Your task to perform on an android device: open chrome privacy settings Image 0: 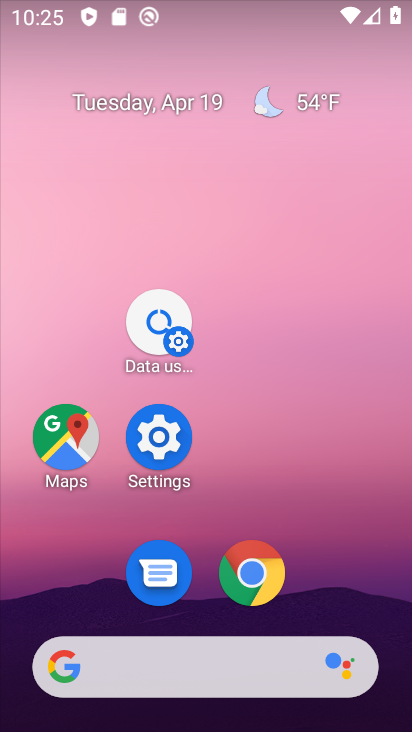
Step 0: click (255, 573)
Your task to perform on an android device: open chrome privacy settings Image 1: 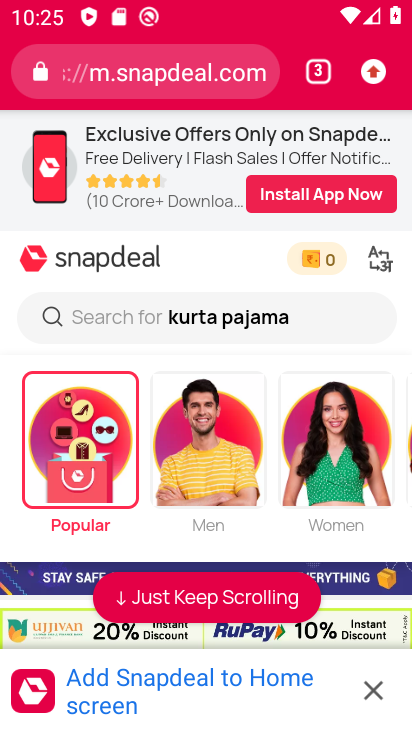
Step 1: click (377, 75)
Your task to perform on an android device: open chrome privacy settings Image 2: 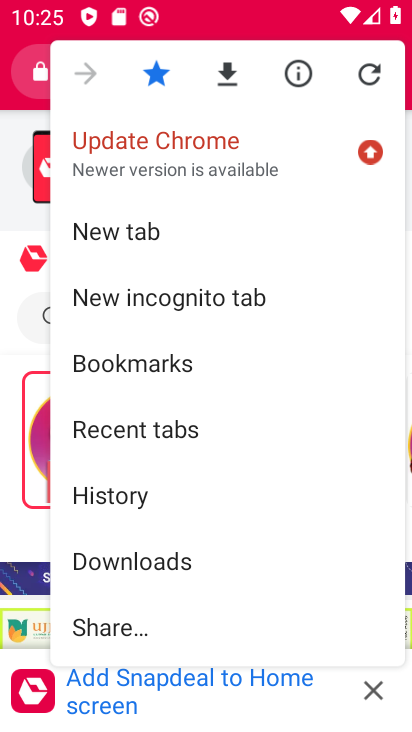
Step 2: drag from (257, 560) to (258, 140)
Your task to perform on an android device: open chrome privacy settings Image 3: 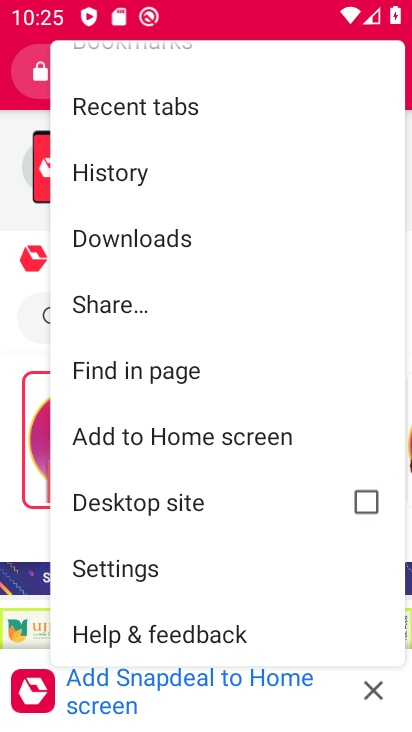
Step 3: click (104, 576)
Your task to perform on an android device: open chrome privacy settings Image 4: 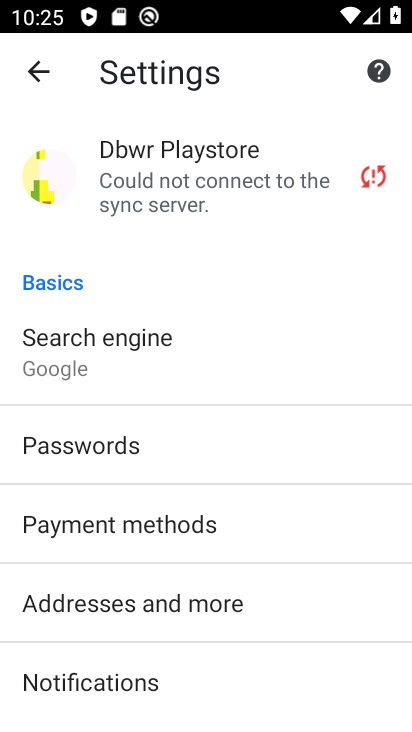
Step 4: drag from (265, 572) to (258, 178)
Your task to perform on an android device: open chrome privacy settings Image 5: 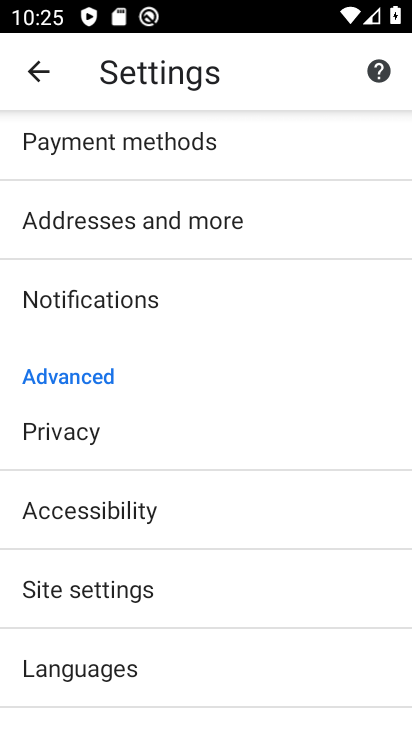
Step 5: click (41, 435)
Your task to perform on an android device: open chrome privacy settings Image 6: 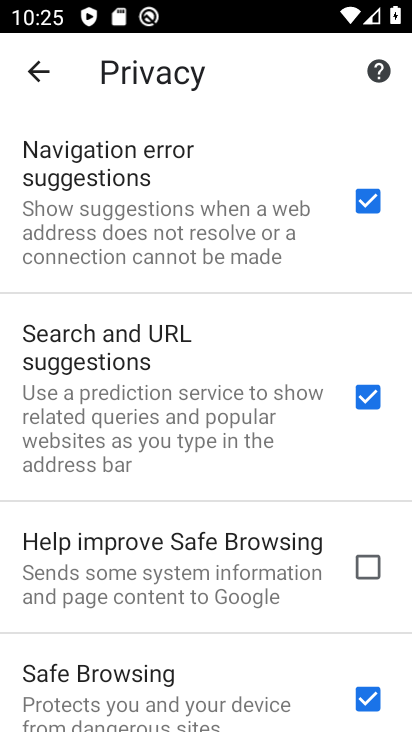
Step 6: task complete